Your task to perform on an android device: What's on my calendar today? Image 0: 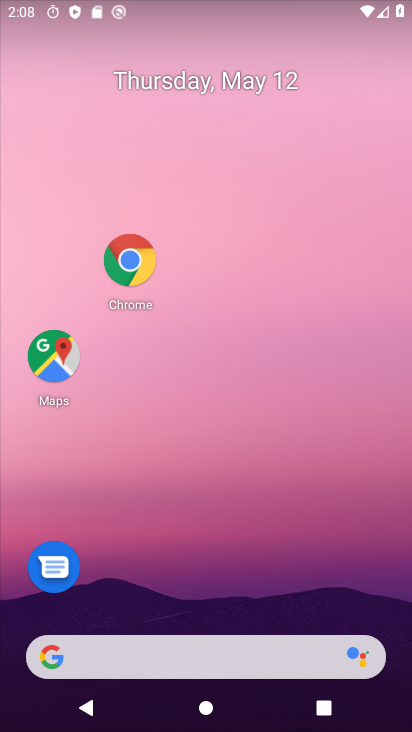
Step 0: drag from (167, 629) to (162, 240)
Your task to perform on an android device: What's on my calendar today? Image 1: 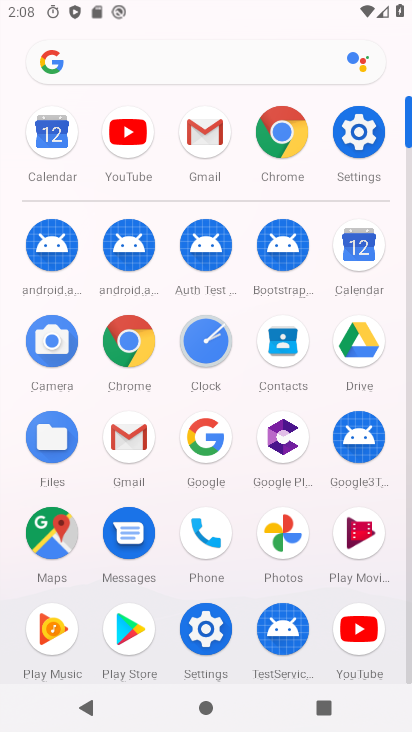
Step 1: click (357, 248)
Your task to perform on an android device: What's on my calendar today? Image 2: 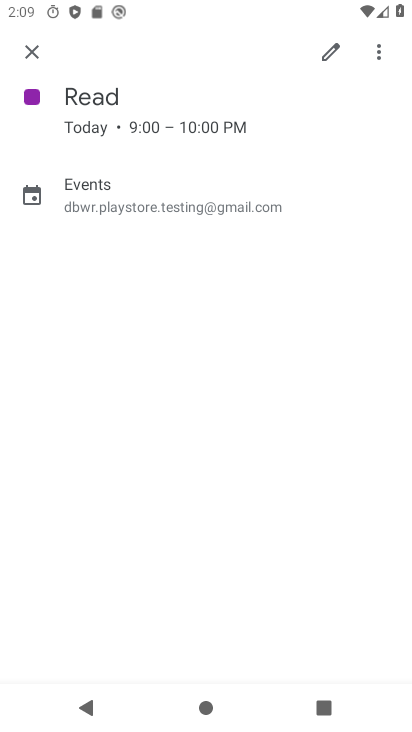
Step 2: task complete